Your task to perform on an android device: Open calendar and show me the first week of next month Image 0: 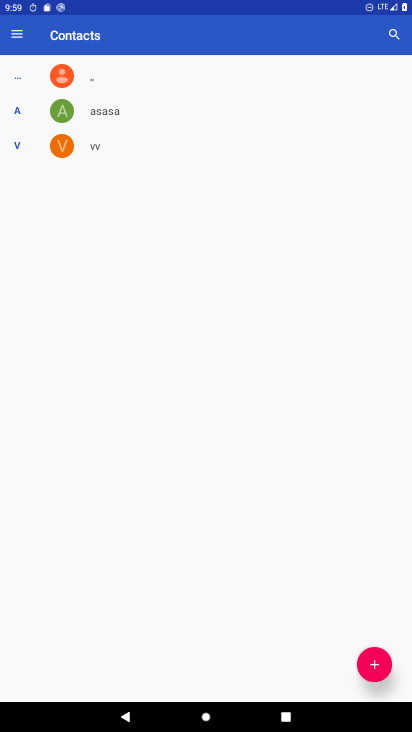
Step 0: press home button
Your task to perform on an android device: Open calendar and show me the first week of next month Image 1: 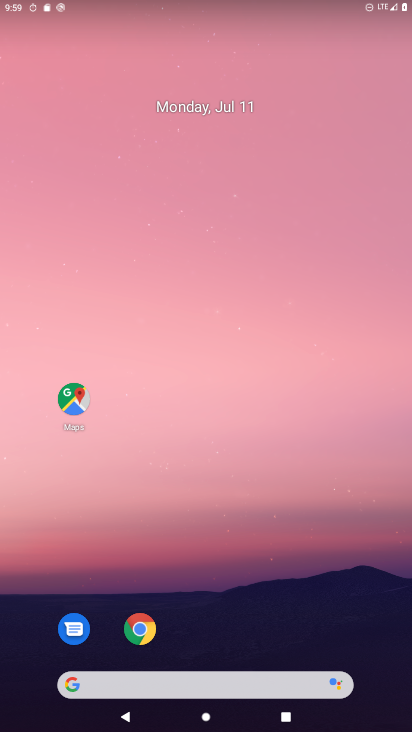
Step 1: click (205, 115)
Your task to perform on an android device: Open calendar and show me the first week of next month Image 2: 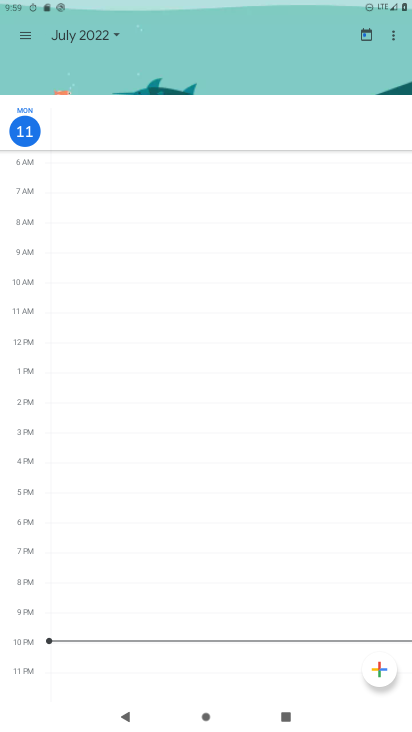
Step 2: click (112, 21)
Your task to perform on an android device: Open calendar and show me the first week of next month Image 3: 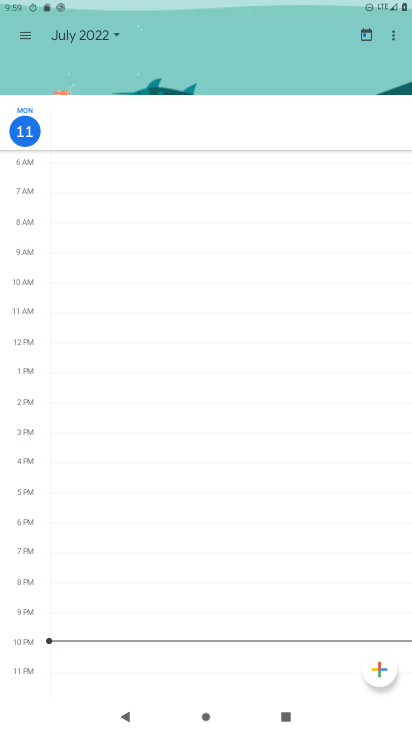
Step 3: click (97, 37)
Your task to perform on an android device: Open calendar and show me the first week of next month Image 4: 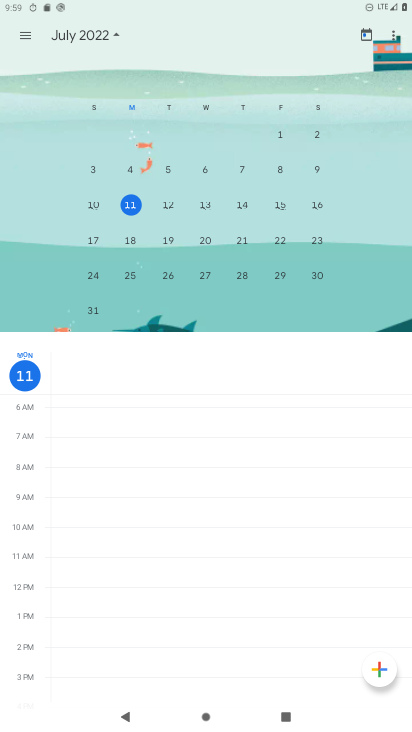
Step 4: task complete